Your task to perform on an android device: install app "Microsoft Authenticator" Image 0: 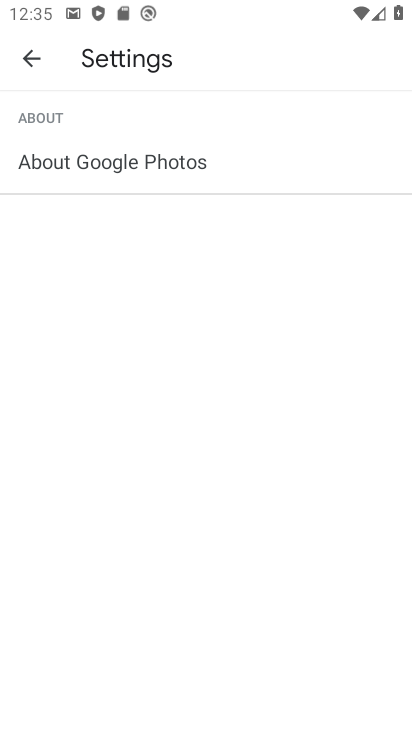
Step 0: press home button
Your task to perform on an android device: install app "Microsoft Authenticator" Image 1: 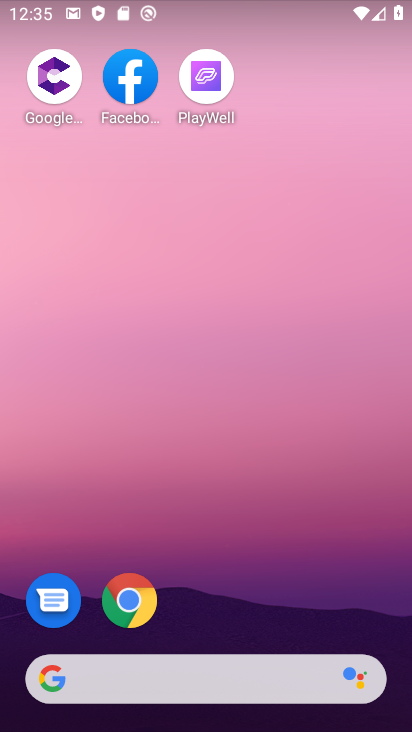
Step 1: drag from (246, 619) to (284, 46)
Your task to perform on an android device: install app "Microsoft Authenticator" Image 2: 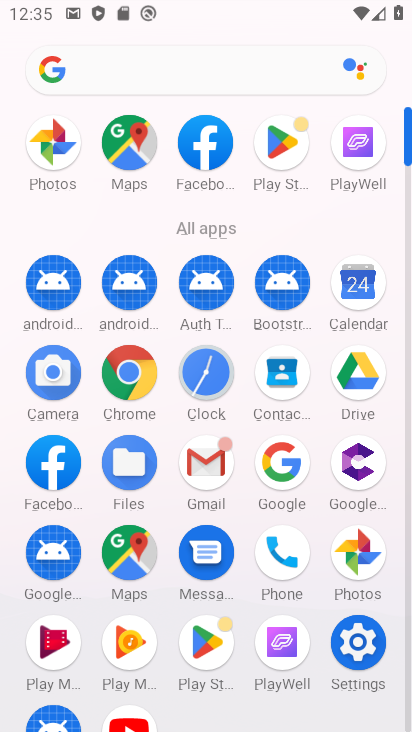
Step 2: click (277, 153)
Your task to perform on an android device: install app "Microsoft Authenticator" Image 3: 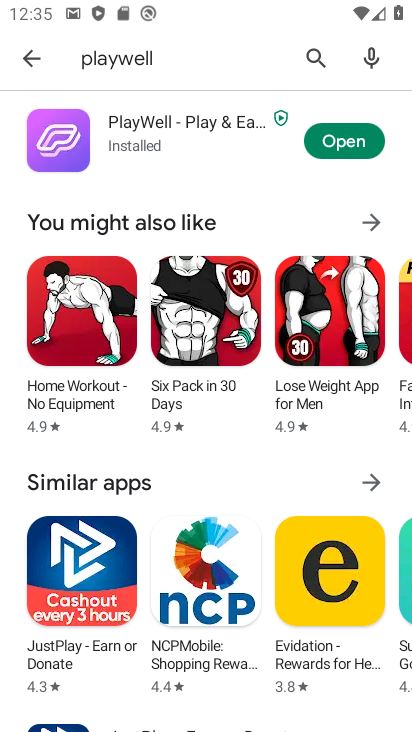
Step 3: click (336, 143)
Your task to perform on an android device: install app "Microsoft Authenticator" Image 4: 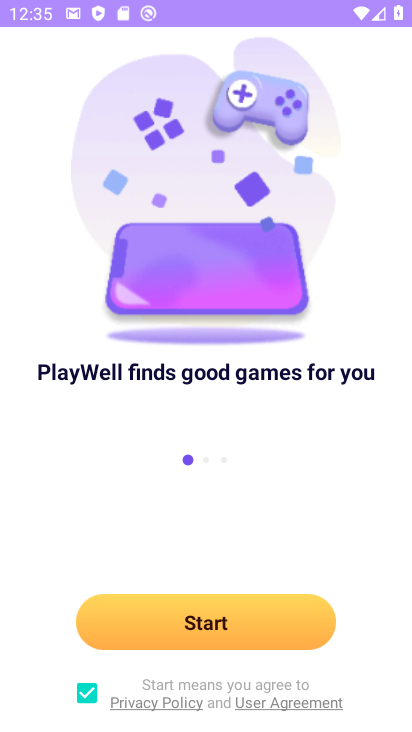
Step 4: task complete